Your task to perform on an android device: Play the last video I watched on Youtube Image 0: 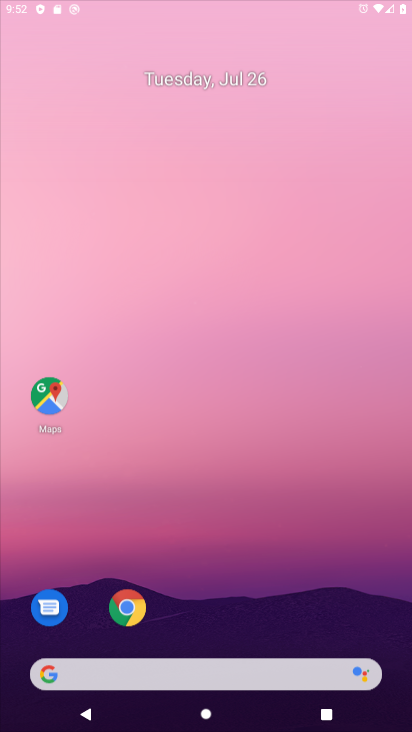
Step 0: click (227, 169)
Your task to perform on an android device: Play the last video I watched on Youtube Image 1: 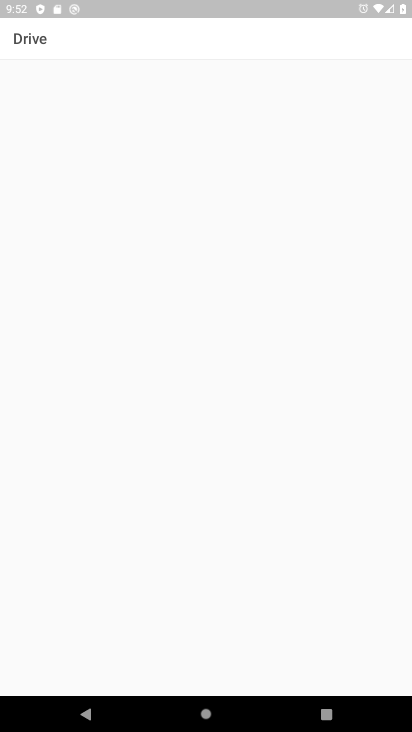
Step 1: press home button
Your task to perform on an android device: Play the last video I watched on Youtube Image 2: 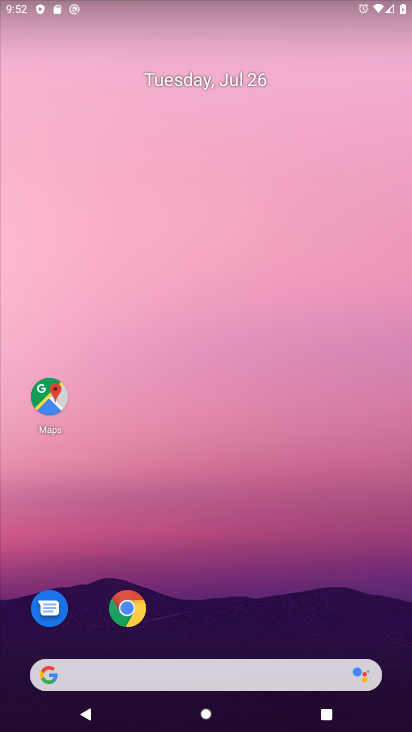
Step 2: drag from (235, 711) to (223, 158)
Your task to perform on an android device: Play the last video I watched on Youtube Image 3: 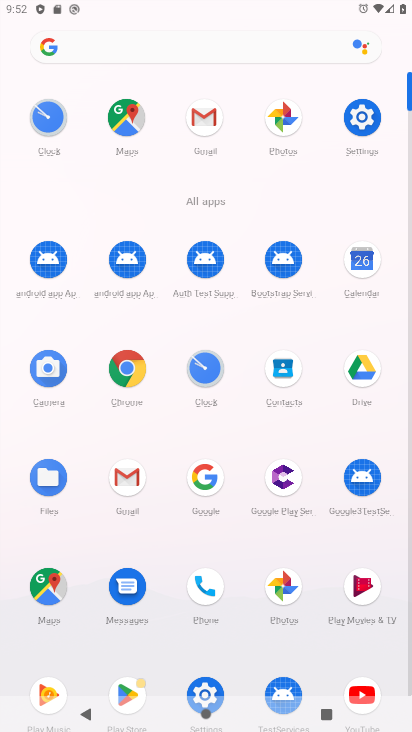
Step 3: click (366, 692)
Your task to perform on an android device: Play the last video I watched on Youtube Image 4: 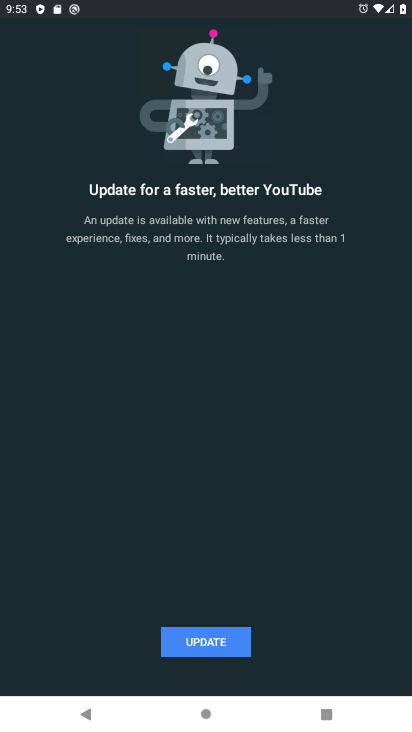
Step 4: task complete